Your task to perform on an android device: When is my next meeting? Image 0: 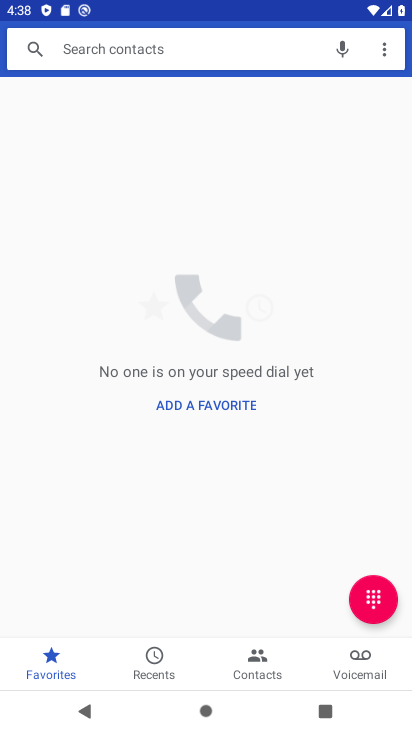
Step 0: press home button
Your task to perform on an android device: When is my next meeting? Image 1: 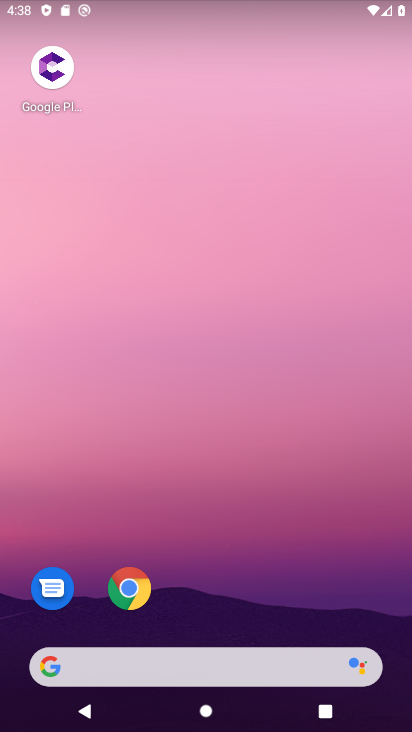
Step 1: drag from (251, 543) to (286, 9)
Your task to perform on an android device: When is my next meeting? Image 2: 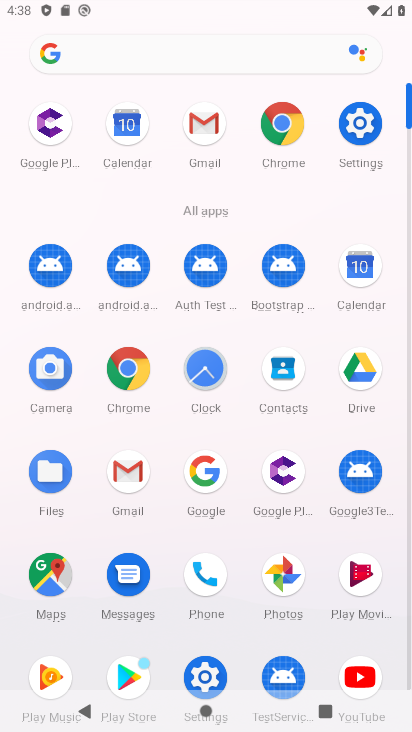
Step 2: click (122, 120)
Your task to perform on an android device: When is my next meeting? Image 3: 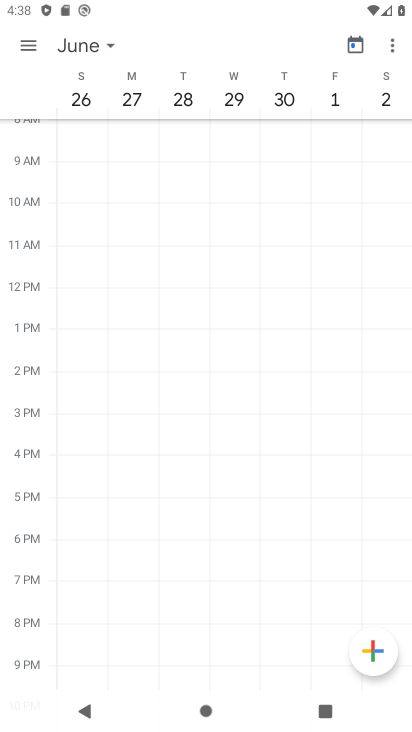
Step 3: click (22, 40)
Your task to perform on an android device: When is my next meeting? Image 4: 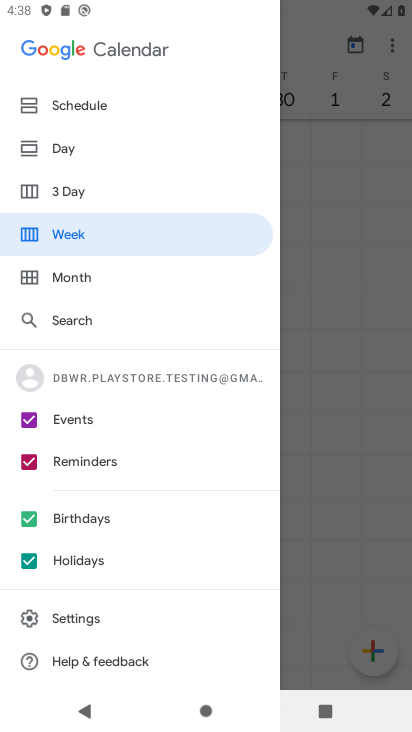
Step 4: click (63, 94)
Your task to perform on an android device: When is my next meeting? Image 5: 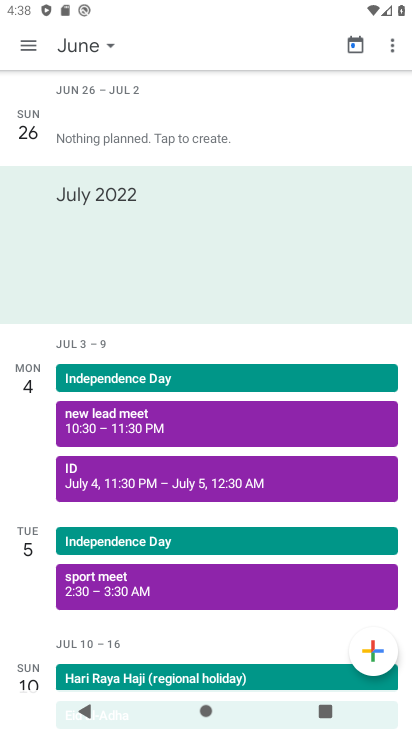
Step 5: drag from (173, 116) to (227, 730)
Your task to perform on an android device: When is my next meeting? Image 6: 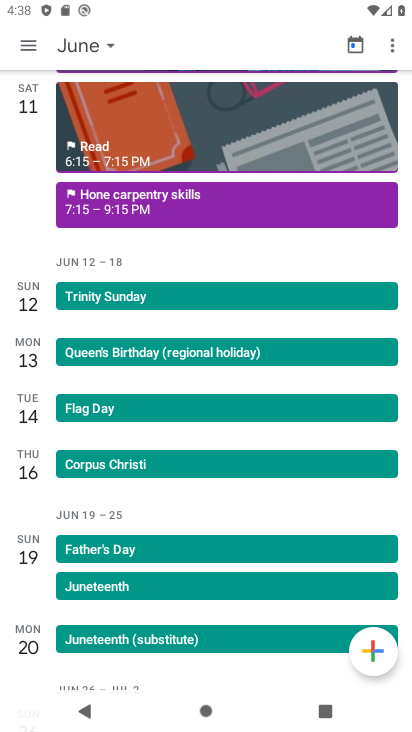
Step 6: drag from (179, 142) to (196, 612)
Your task to perform on an android device: When is my next meeting? Image 7: 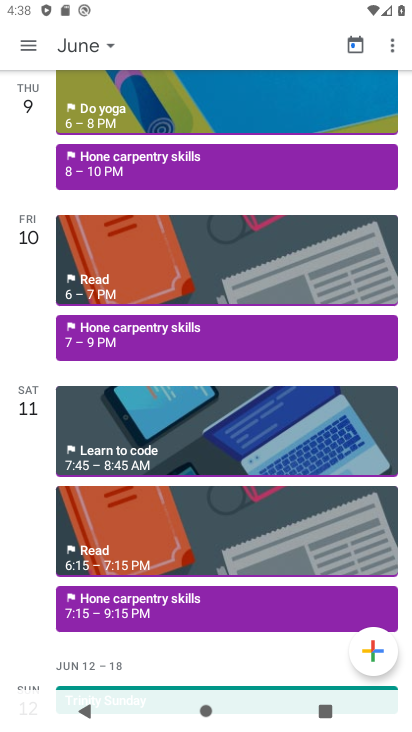
Step 7: drag from (207, 118) to (228, 577)
Your task to perform on an android device: When is my next meeting? Image 8: 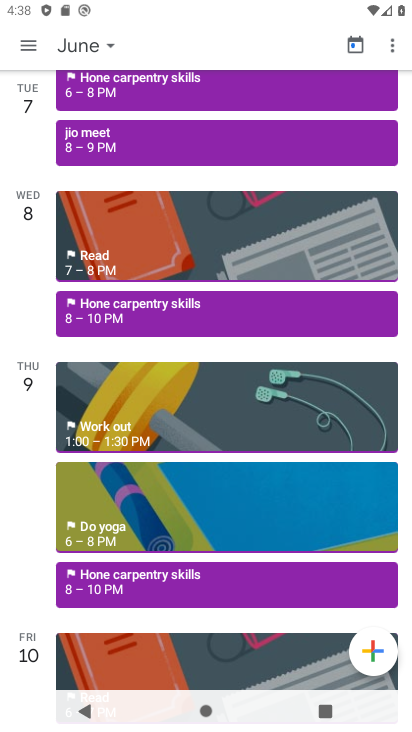
Step 8: drag from (244, 175) to (249, 527)
Your task to perform on an android device: When is my next meeting? Image 9: 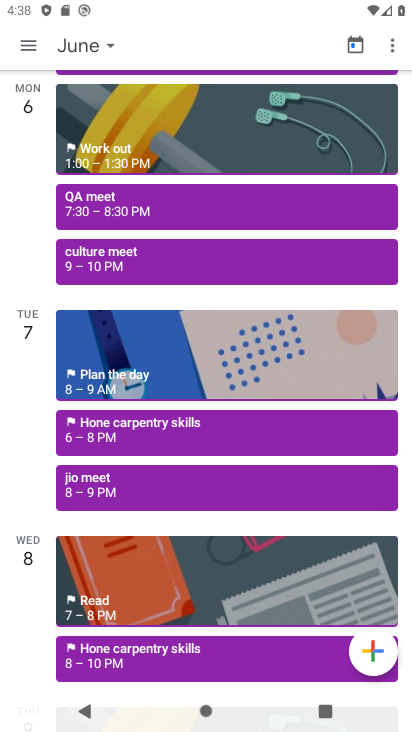
Step 9: drag from (185, 128) to (194, 519)
Your task to perform on an android device: When is my next meeting? Image 10: 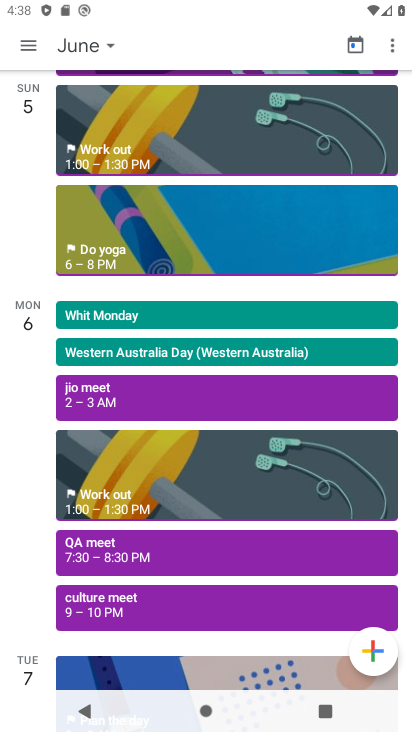
Step 10: drag from (191, 140) to (236, 580)
Your task to perform on an android device: When is my next meeting? Image 11: 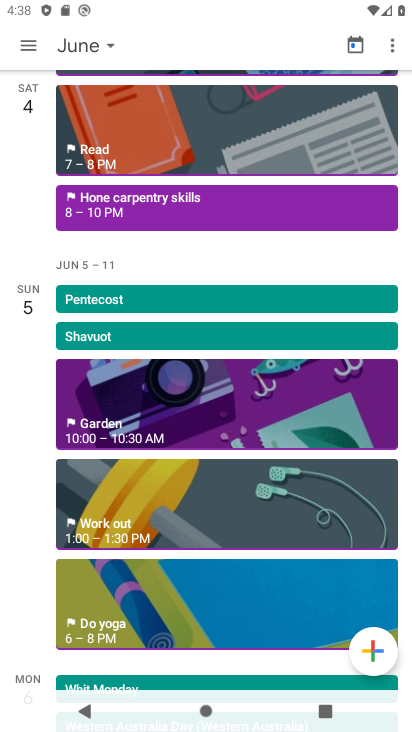
Step 11: drag from (193, 178) to (230, 599)
Your task to perform on an android device: When is my next meeting? Image 12: 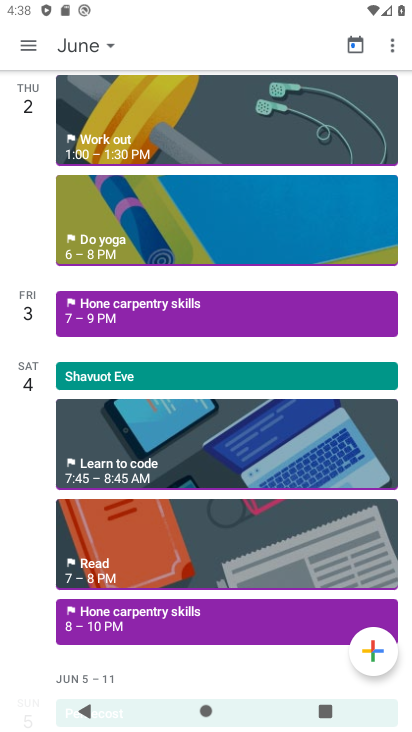
Step 12: drag from (202, 167) to (209, 647)
Your task to perform on an android device: When is my next meeting? Image 13: 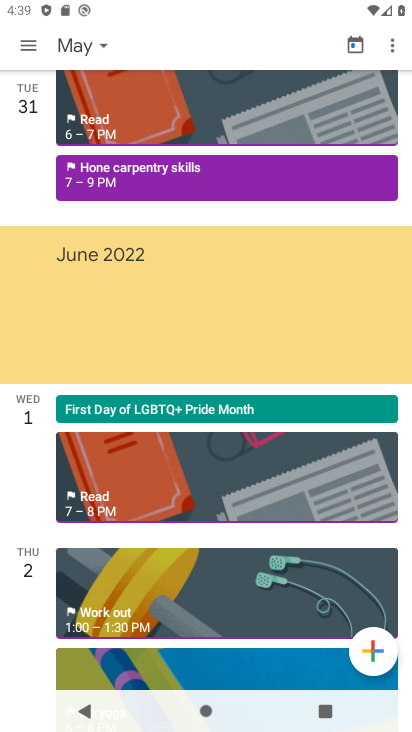
Step 13: drag from (223, 153) to (242, 664)
Your task to perform on an android device: When is my next meeting? Image 14: 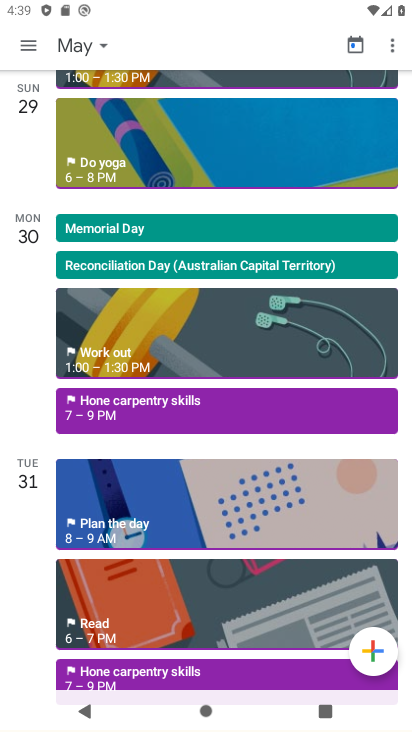
Step 14: drag from (228, 103) to (253, 643)
Your task to perform on an android device: When is my next meeting? Image 15: 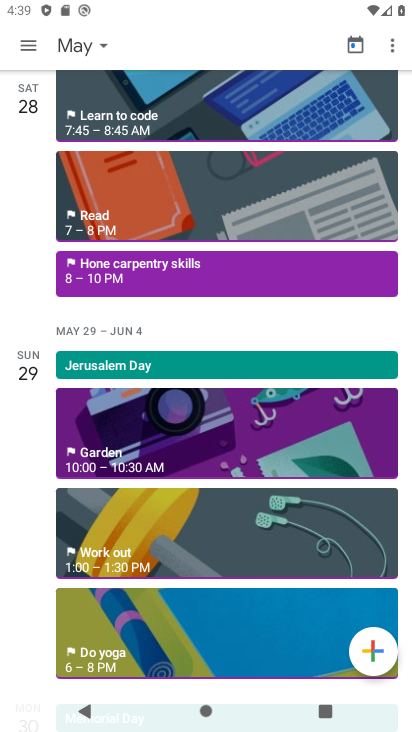
Step 15: drag from (209, 139) to (227, 608)
Your task to perform on an android device: When is my next meeting? Image 16: 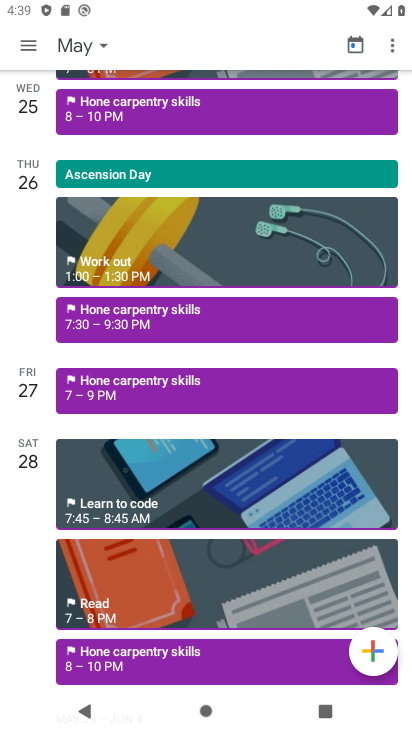
Step 16: drag from (189, 140) to (205, 592)
Your task to perform on an android device: When is my next meeting? Image 17: 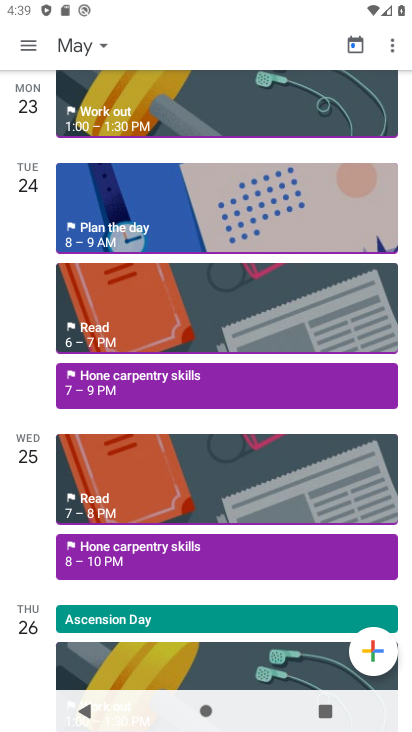
Step 17: drag from (199, 158) to (189, 691)
Your task to perform on an android device: When is my next meeting? Image 18: 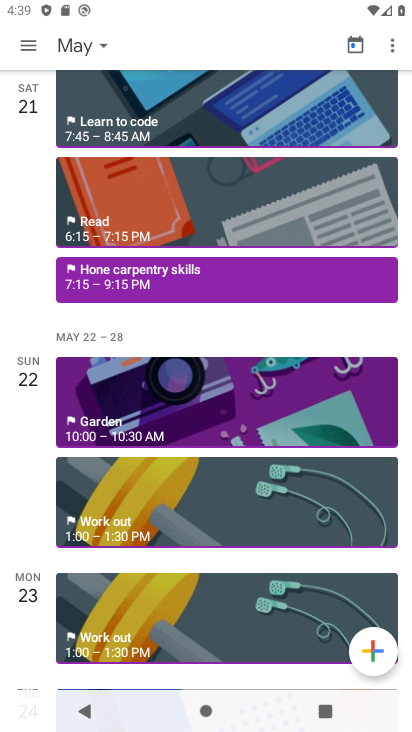
Step 18: drag from (221, 94) to (244, 673)
Your task to perform on an android device: When is my next meeting? Image 19: 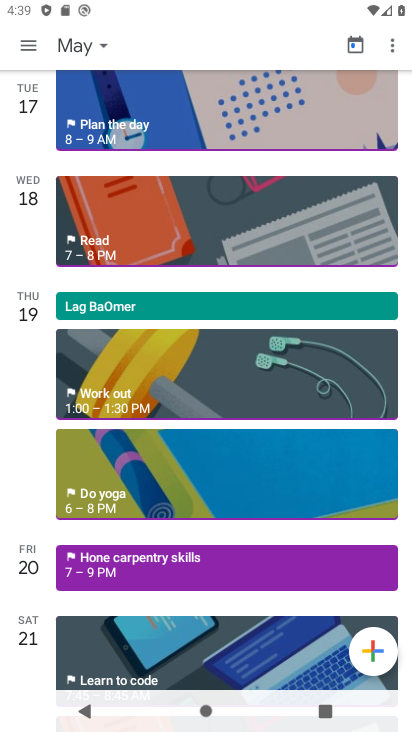
Step 19: drag from (224, 89) to (222, 673)
Your task to perform on an android device: When is my next meeting? Image 20: 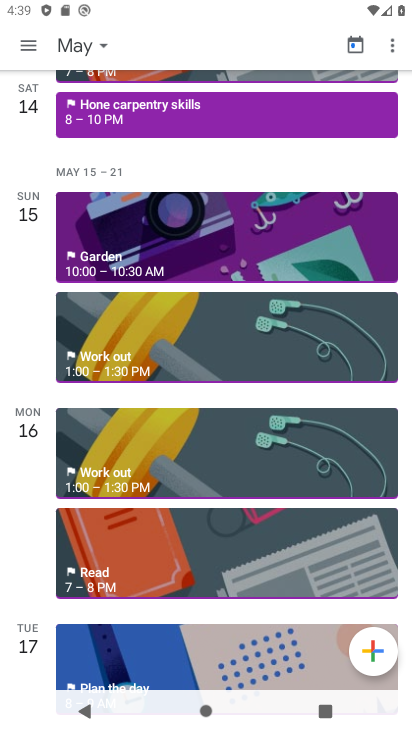
Step 20: drag from (228, 126) to (225, 585)
Your task to perform on an android device: When is my next meeting? Image 21: 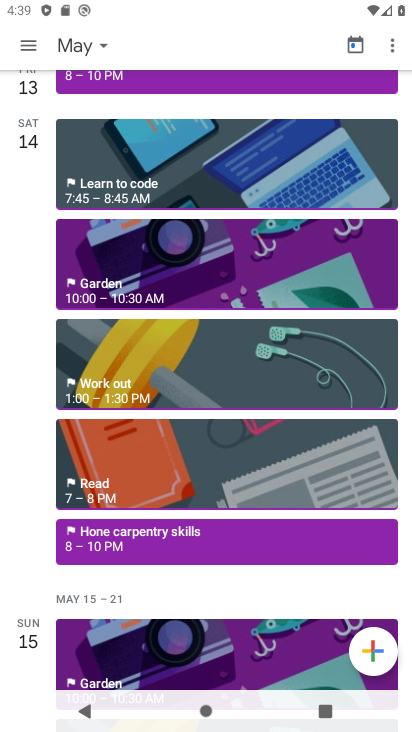
Step 21: drag from (215, 113) to (218, 590)
Your task to perform on an android device: When is my next meeting? Image 22: 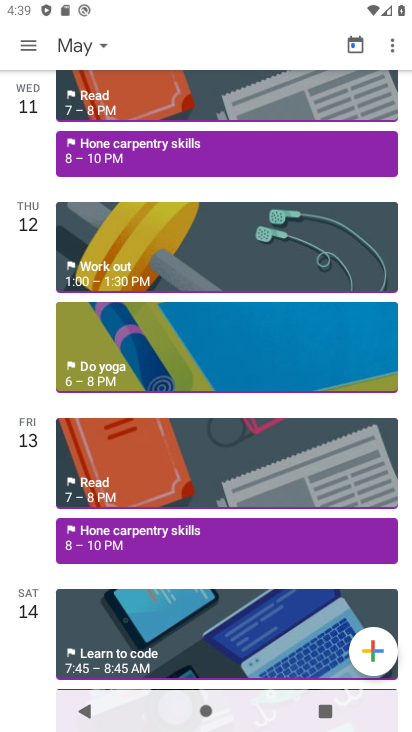
Step 22: drag from (224, 207) to (184, 594)
Your task to perform on an android device: When is my next meeting? Image 23: 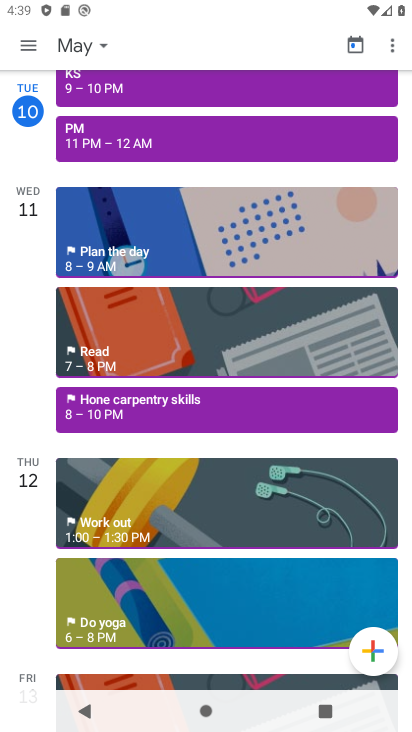
Step 23: click (220, 237)
Your task to perform on an android device: When is my next meeting? Image 24: 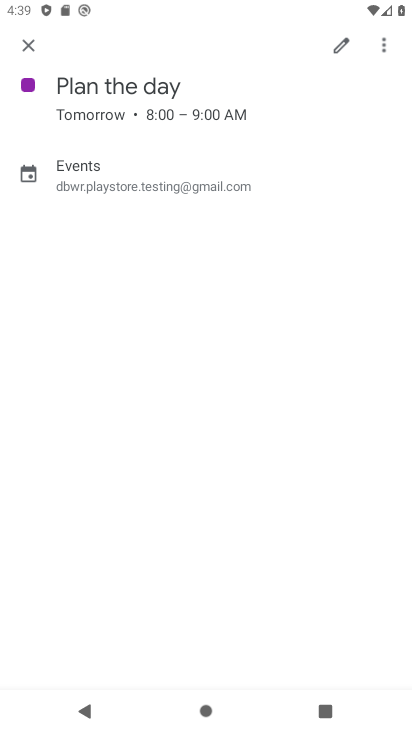
Step 24: task complete